Your task to perform on an android device: remove spam from my inbox in the gmail app Image 0: 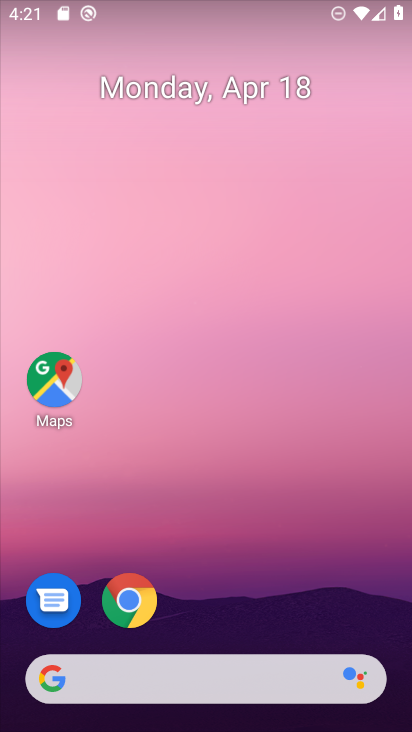
Step 0: click (204, 35)
Your task to perform on an android device: remove spam from my inbox in the gmail app Image 1: 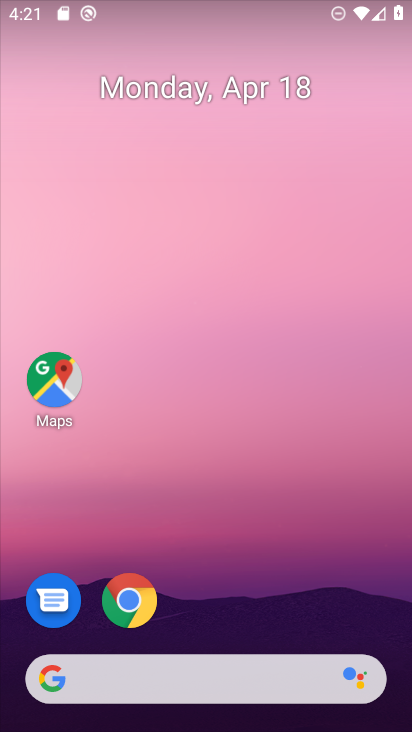
Step 1: drag from (238, 608) to (254, 207)
Your task to perform on an android device: remove spam from my inbox in the gmail app Image 2: 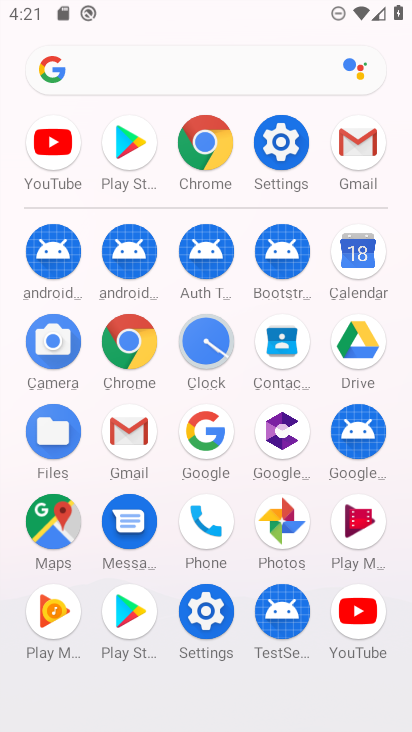
Step 2: click (347, 164)
Your task to perform on an android device: remove spam from my inbox in the gmail app Image 3: 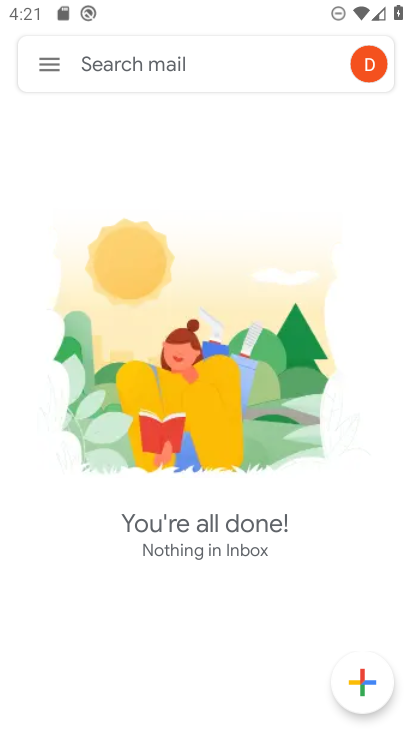
Step 3: click (52, 67)
Your task to perform on an android device: remove spam from my inbox in the gmail app Image 4: 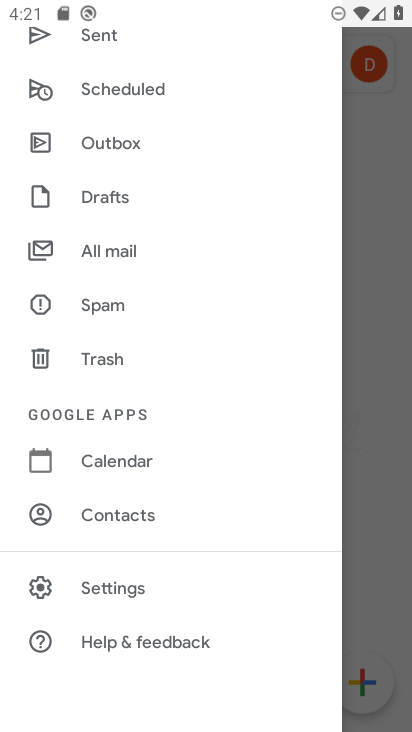
Step 4: click (110, 307)
Your task to perform on an android device: remove spam from my inbox in the gmail app Image 5: 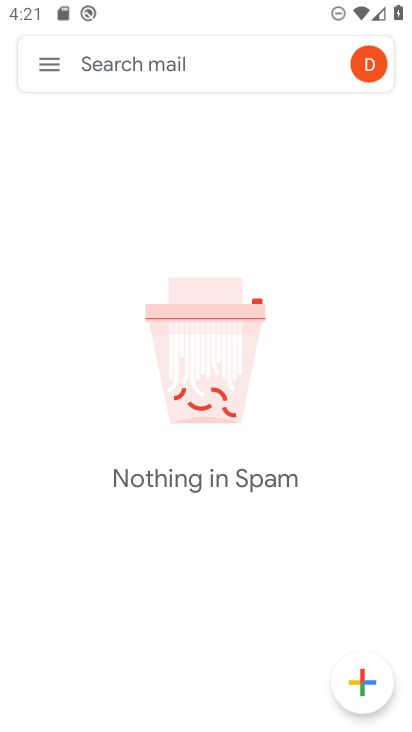
Step 5: task complete